Your task to perform on an android device: turn pop-ups off in chrome Image 0: 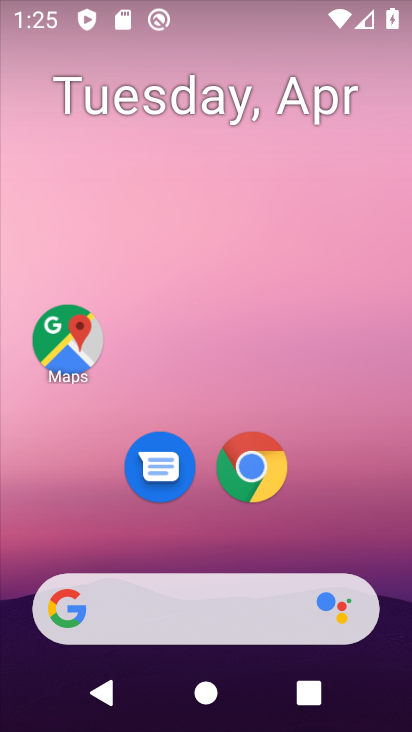
Step 0: drag from (388, 544) to (382, 87)
Your task to perform on an android device: turn pop-ups off in chrome Image 1: 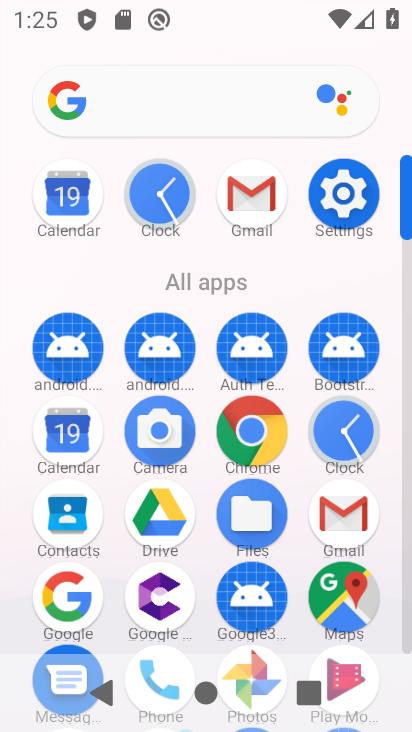
Step 1: click (253, 431)
Your task to perform on an android device: turn pop-ups off in chrome Image 2: 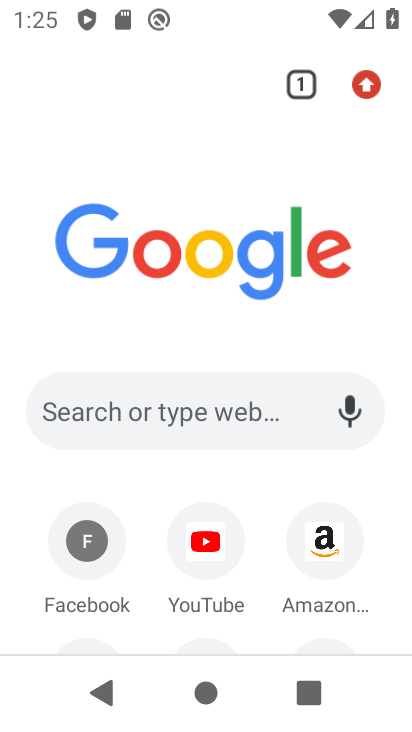
Step 2: click (370, 85)
Your task to perform on an android device: turn pop-ups off in chrome Image 3: 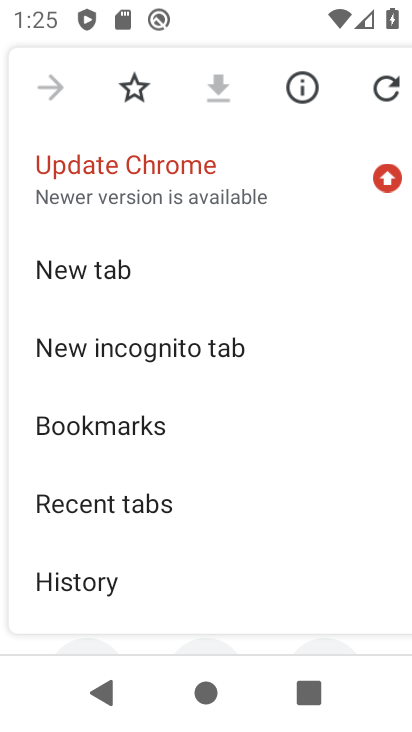
Step 3: drag from (333, 497) to (338, 377)
Your task to perform on an android device: turn pop-ups off in chrome Image 4: 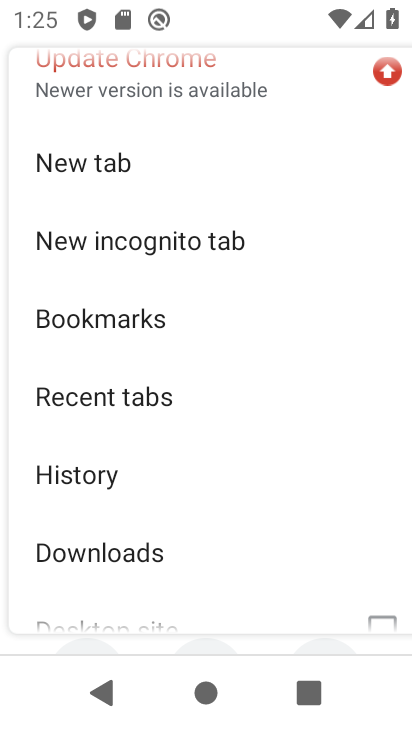
Step 4: drag from (316, 480) to (311, 263)
Your task to perform on an android device: turn pop-ups off in chrome Image 5: 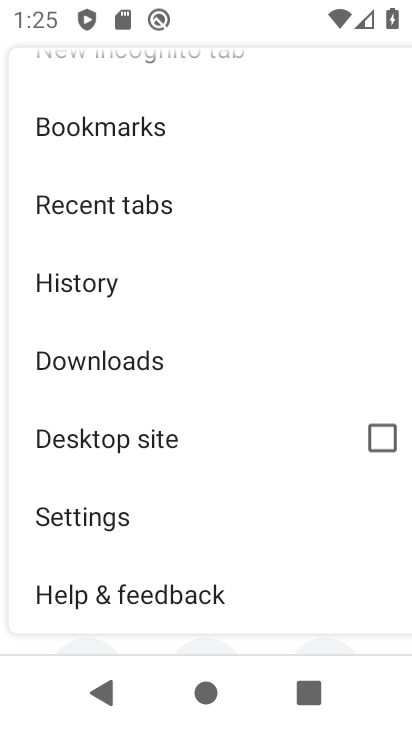
Step 5: click (120, 519)
Your task to perform on an android device: turn pop-ups off in chrome Image 6: 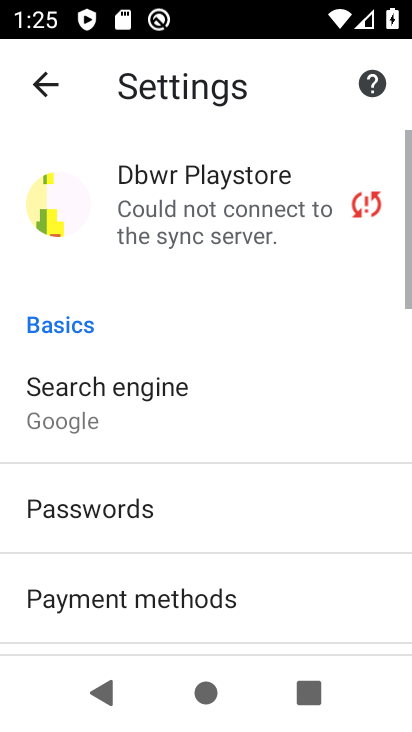
Step 6: drag from (277, 551) to (299, 400)
Your task to perform on an android device: turn pop-ups off in chrome Image 7: 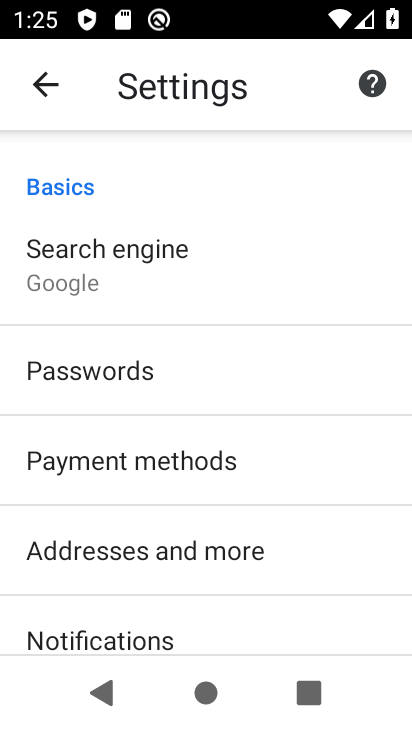
Step 7: drag from (294, 570) to (302, 418)
Your task to perform on an android device: turn pop-ups off in chrome Image 8: 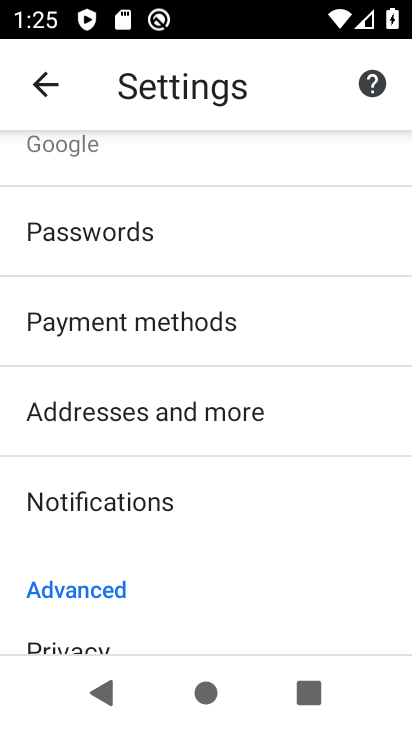
Step 8: drag from (304, 559) to (303, 372)
Your task to perform on an android device: turn pop-ups off in chrome Image 9: 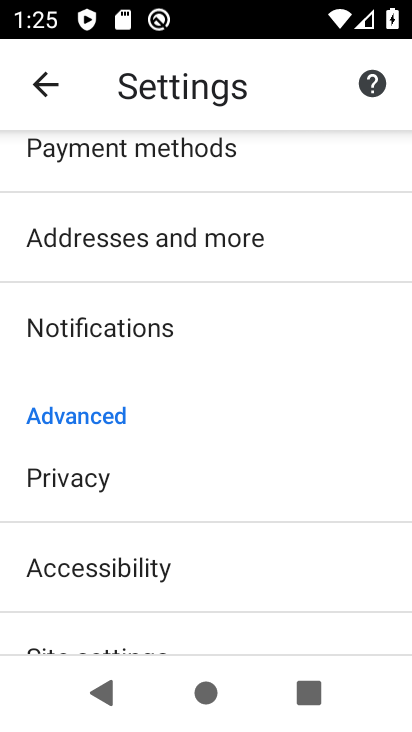
Step 9: drag from (311, 572) to (315, 349)
Your task to perform on an android device: turn pop-ups off in chrome Image 10: 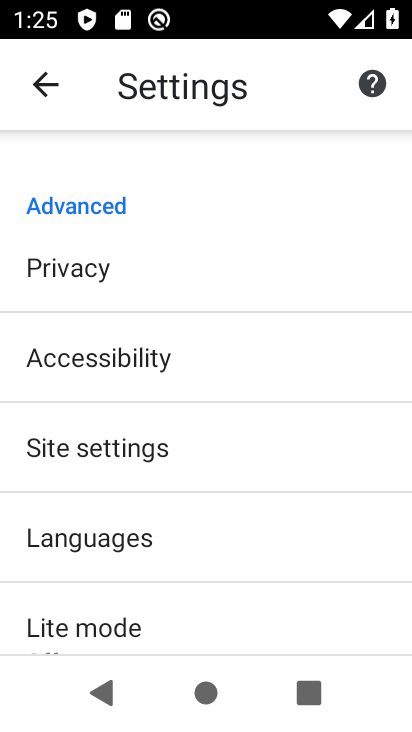
Step 10: click (249, 454)
Your task to perform on an android device: turn pop-ups off in chrome Image 11: 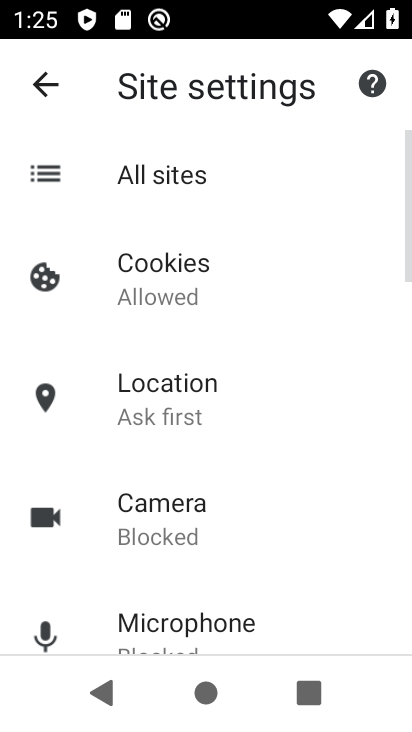
Step 11: drag from (291, 559) to (297, 389)
Your task to perform on an android device: turn pop-ups off in chrome Image 12: 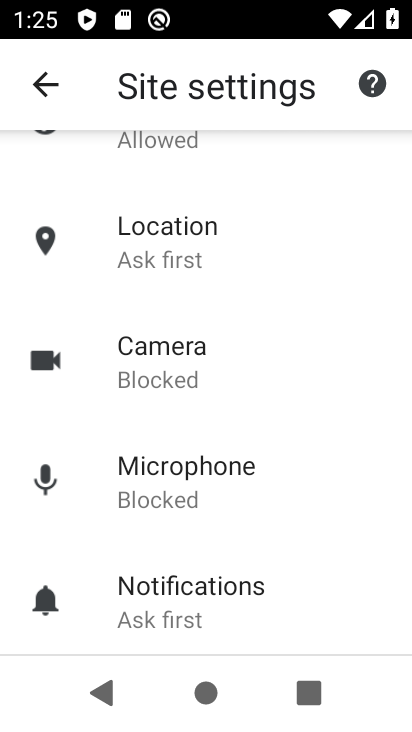
Step 12: drag from (329, 565) to (341, 419)
Your task to perform on an android device: turn pop-ups off in chrome Image 13: 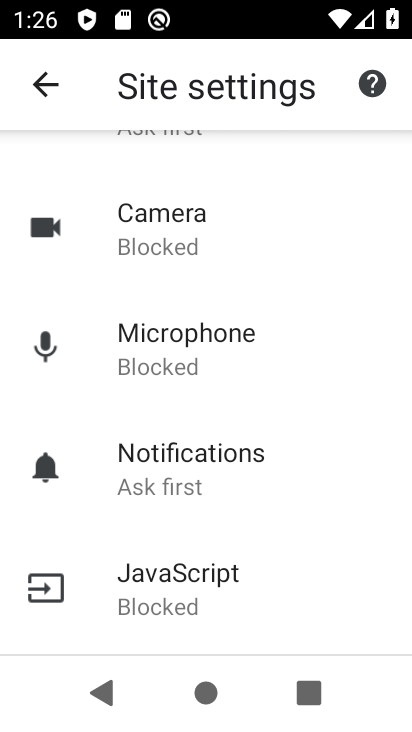
Step 13: drag from (350, 591) to (355, 421)
Your task to perform on an android device: turn pop-ups off in chrome Image 14: 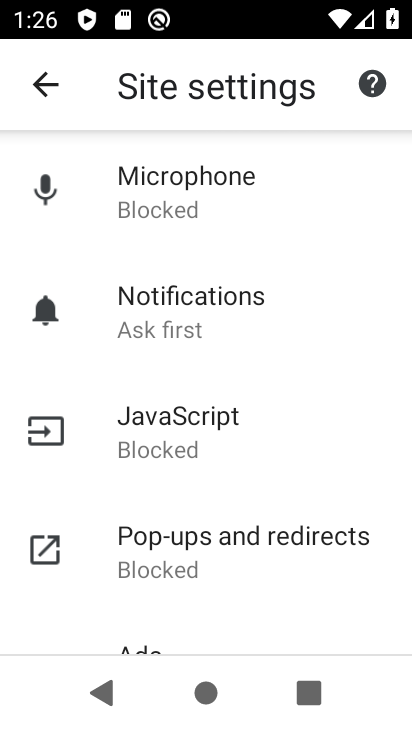
Step 14: drag from (282, 574) to (284, 397)
Your task to perform on an android device: turn pop-ups off in chrome Image 15: 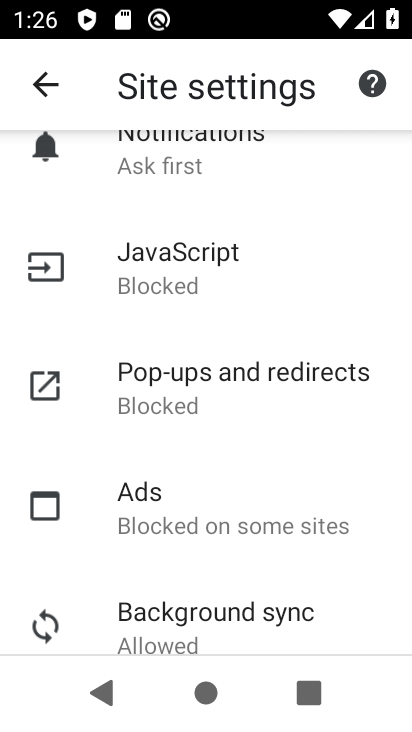
Step 15: click (151, 375)
Your task to perform on an android device: turn pop-ups off in chrome Image 16: 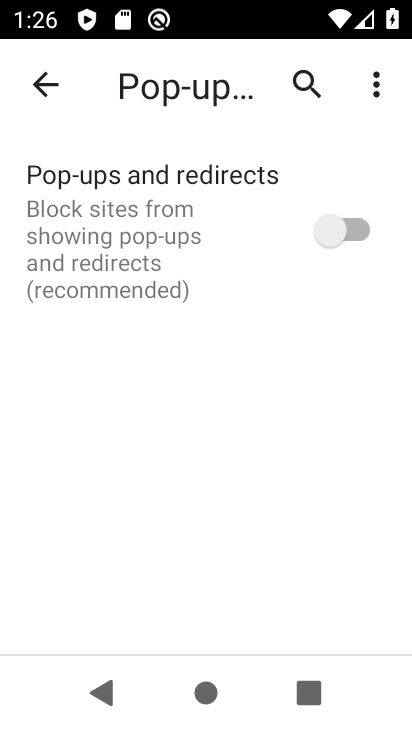
Step 16: task complete